Your task to perform on an android device: Open calendar and show me the third week of next month Image 0: 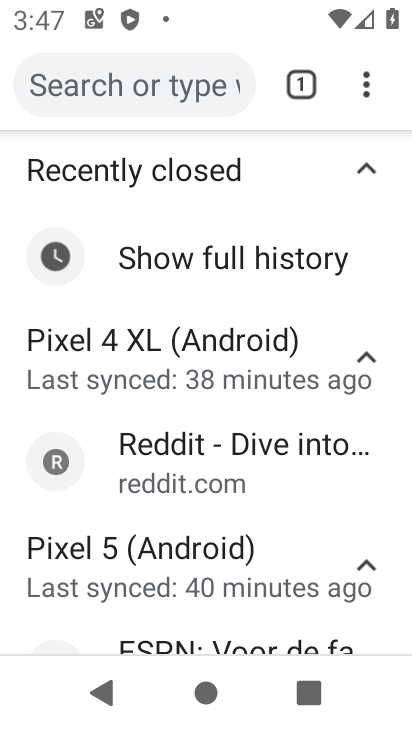
Step 0: press home button
Your task to perform on an android device: Open calendar and show me the third week of next month Image 1: 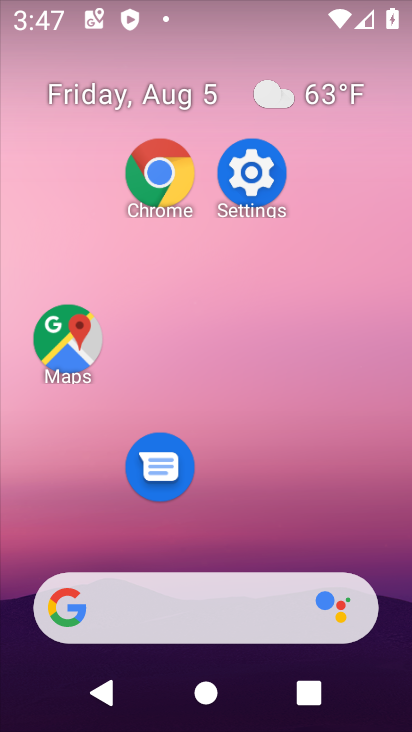
Step 1: drag from (273, 537) to (360, 96)
Your task to perform on an android device: Open calendar and show me the third week of next month Image 2: 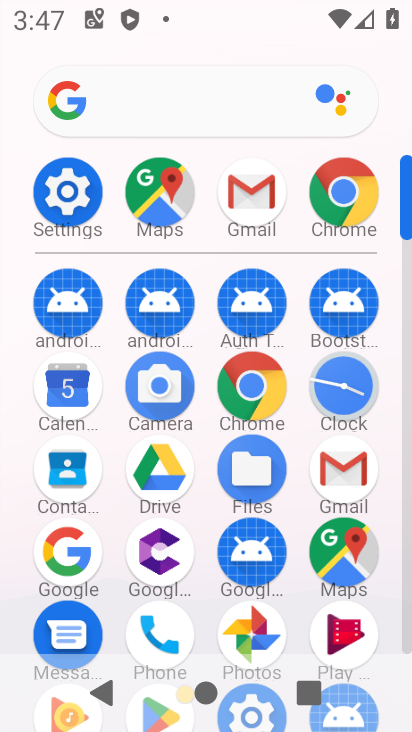
Step 2: click (69, 395)
Your task to perform on an android device: Open calendar and show me the third week of next month Image 3: 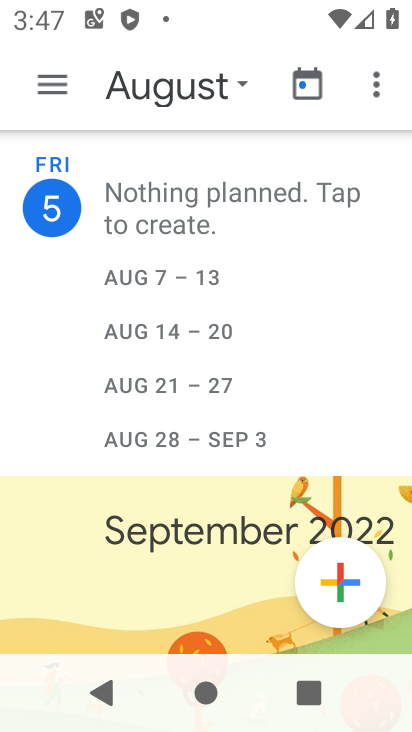
Step 3: click (234, 87)
Your task to perform on an android device: Open calendar and show me the third week of next month Image 4: 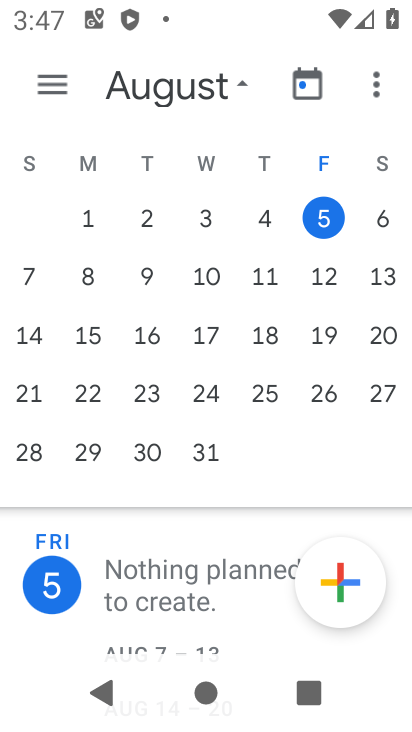
Step 4: drag from (375, 295) to (20, 280)
Your task to perform on an android device: Open calendar and show me the third week of next month Image 5: 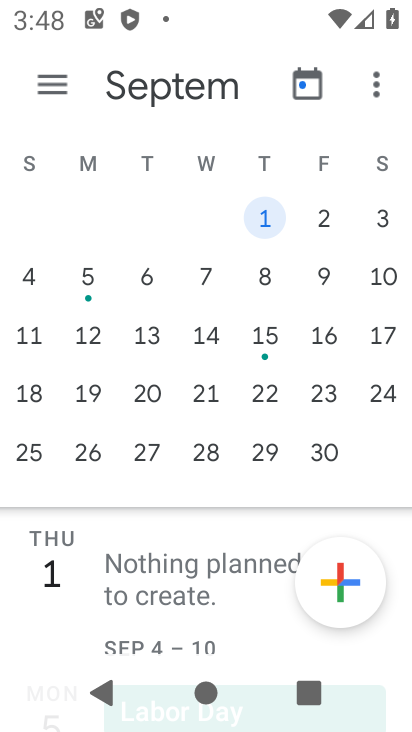
Step 5: click (270, 333)
Your task to perform on an android device: Open calendar and show me the third week of next month Image 6: 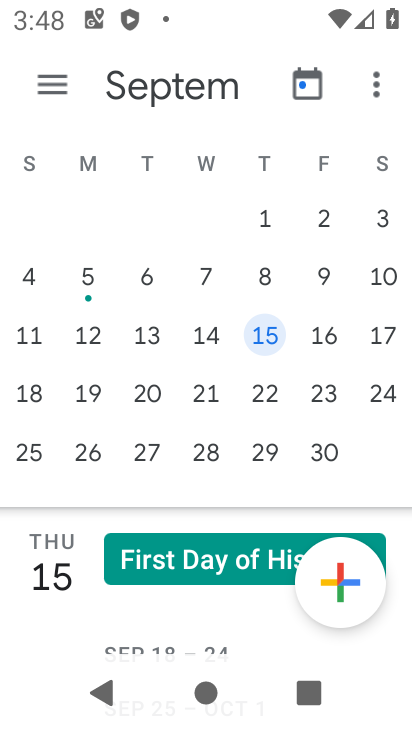
Step 6: task complete